Your task to perform on an android device: see creations saved in the google photos Image 0: 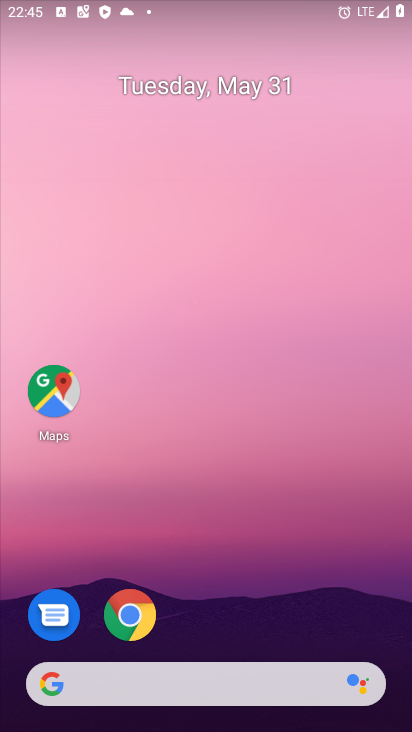
Step 0: drag from (384, 631) to (334, 105)
Your task to perform on an android device: see creations saved in the google photos Image 1: 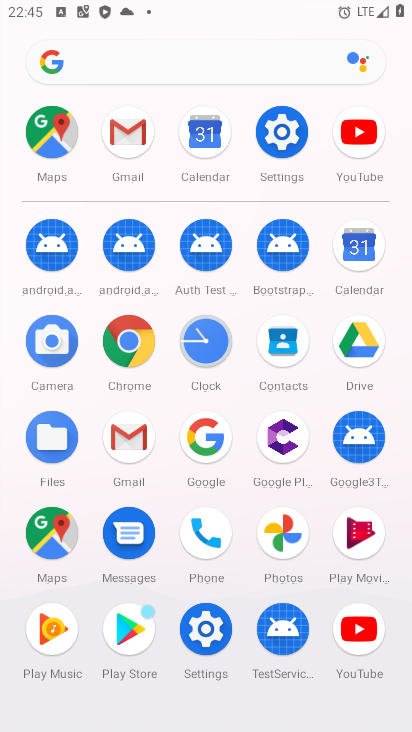
Step 1: click (279, 532)
Your task to perform on an android device: see creations saved in the google photos Image 2: 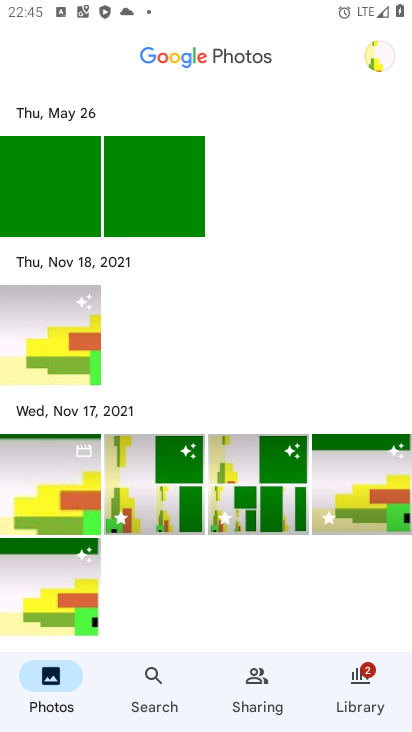
Step 2: task complete